Your task to perform on an android device: check out phone information Image 0: 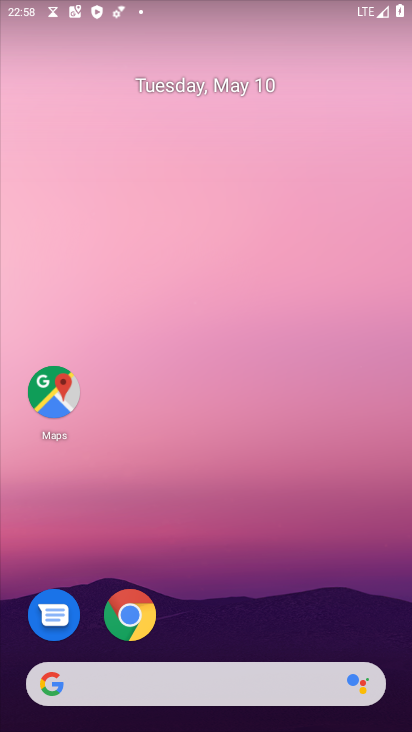
Step 0: drag from (237, 602) to (240, 58)
Your task to perform on an android device: check out phone information Image 1: 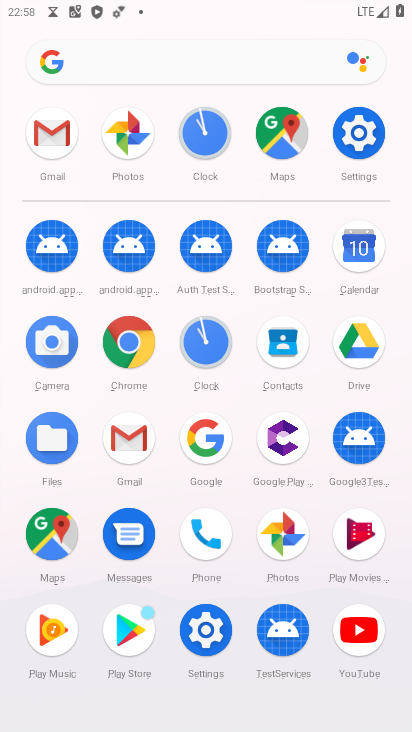
Step 1: click (356, 134)
Your task to perform on an android device: check out phone information Image 2: 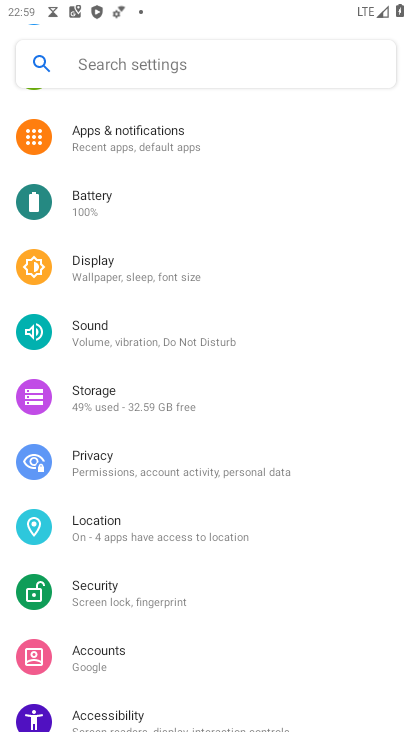
Step 2: drag from (132, 669) to (156, 408)
Your task to perform on an android device: check out phone information Image 3: 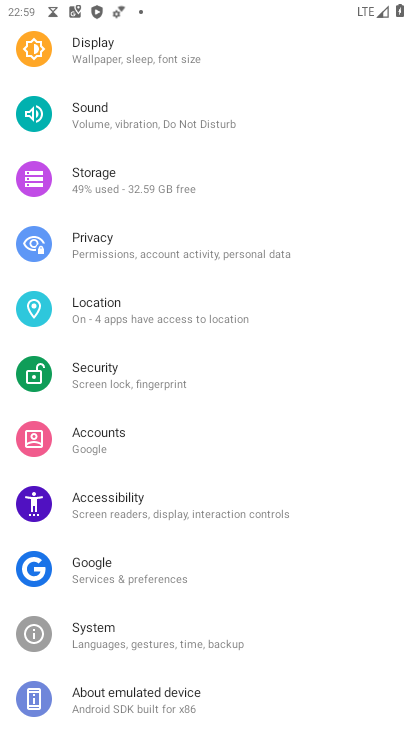
Step 3: click (122, 695)
Your task to perform on an android device: check out phone information Image 4: 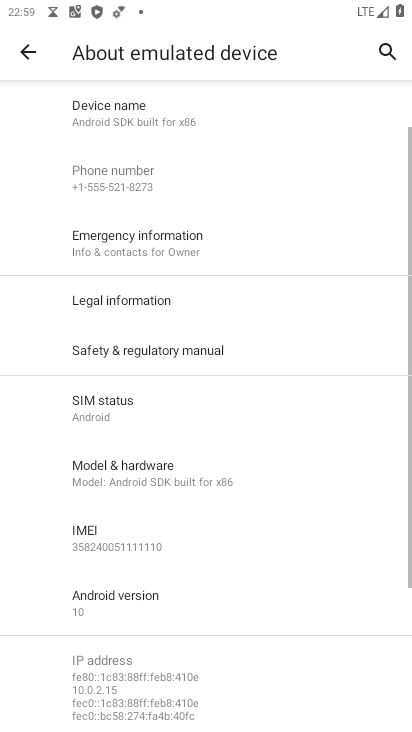
Step 4: task complete